Your task to perform on an android device: Do I have any events today? Image 0: 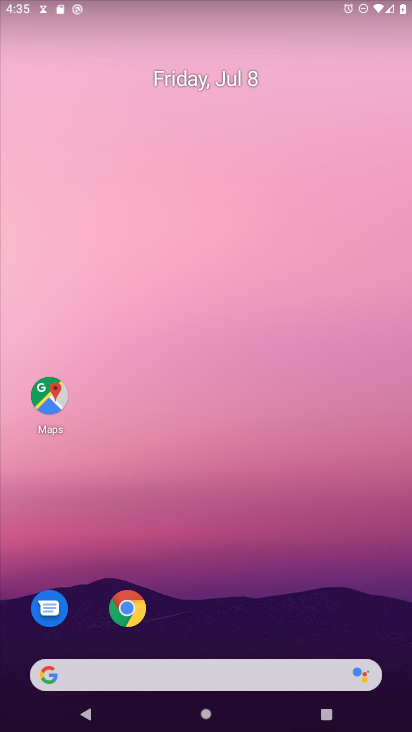
Step 0: drag from (341, 591) to (342, 6)
Your task to perform on an android device: Do I have any events today? Image 1: 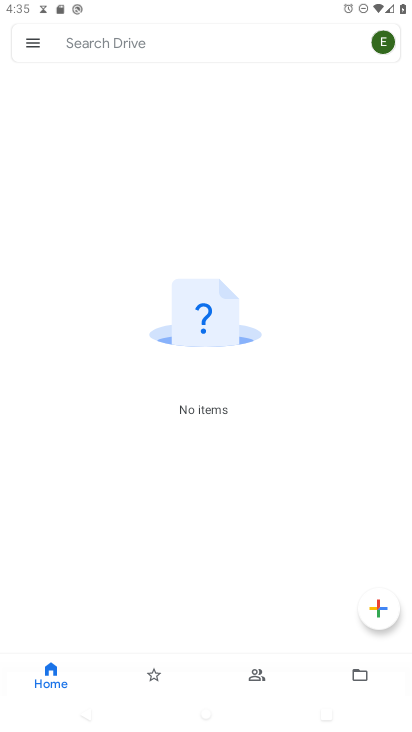
Step 1: press home button
Your task to perform on an android device: Do I have any events today? Image 2: 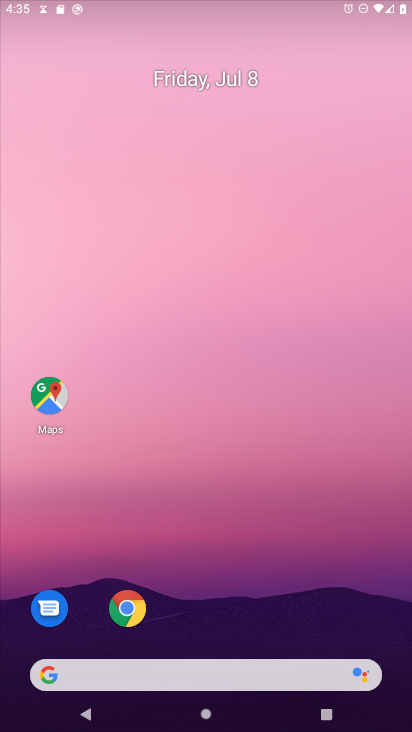
Step 2: drag from (220, 699) to (281, 71)
Your task to perform on an android device: Do I have any events today? Image 3: 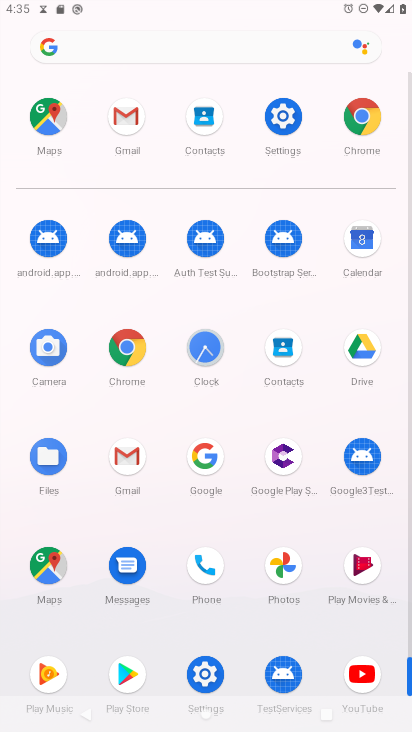
Step 3: click (358, 249)
Your task to perform on an android device: Do I have any events today? Image 4: 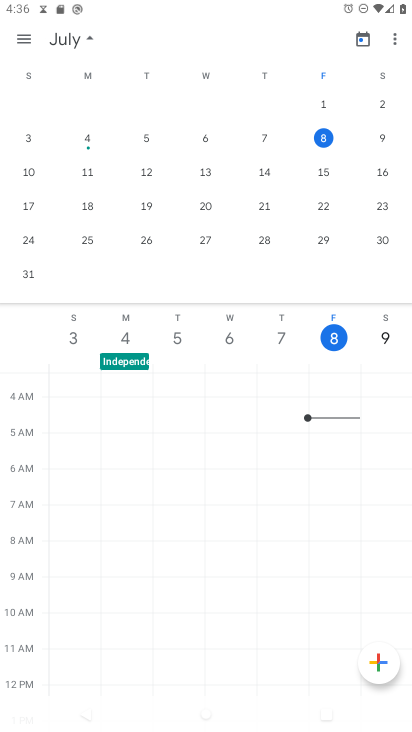
Step 4: click (323, 141)
Your task to perform on an android device: Do I have any events today? Image 5: 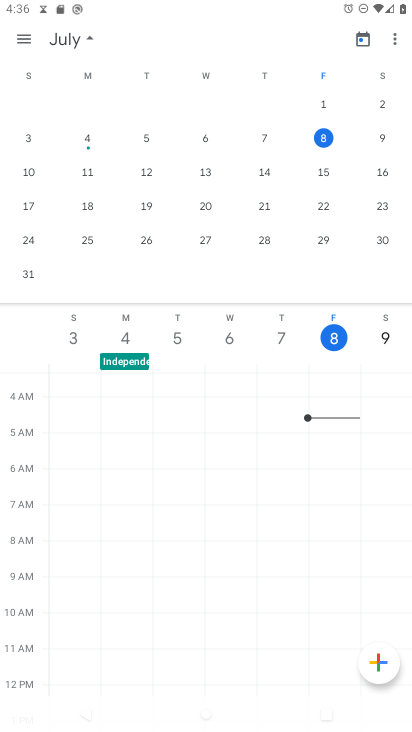
Step 5: task complete